Your task to perform on an android device: Clear the shopping cart on walmart. Add "logitech g pro" to the cart on walmart, then select checkout. Image 0: 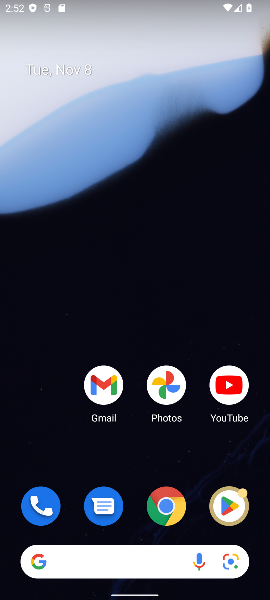
Step 0: drag from (114, 523) to (235, 38)
Your task to perform on an android device: Clear the shopping cart on walmart. Add "logitech g pro" to the cart on walmart, then select checkout. Image 1: 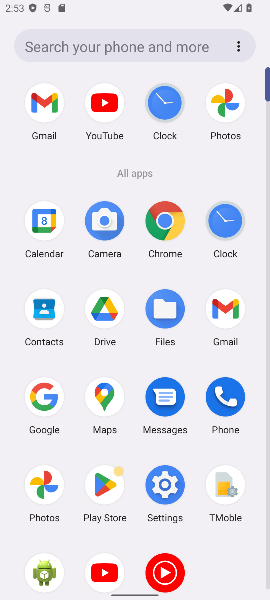
Step 1: click (52, 404)
Your task to perform on an android device: Clear the shopping cart on walmart. Add "logitech g pro" to the cart on walmart, then select checkout. Image 2: 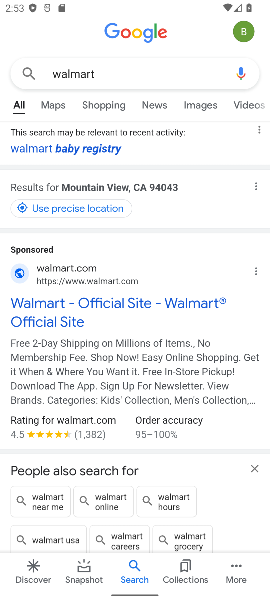
Step 2: click (112, 311)
Your task to perform on an android device: Clear the shopping cart on walmart. Add "logitech g pro" to the cart on walmart, then select checkout. Image 3: 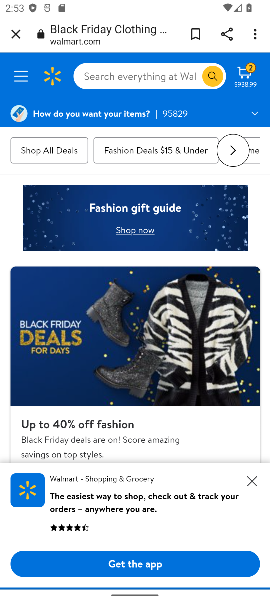
Step 3: click (167, 79)
Your task to perform on an android device: Clear the shopping cart on walmart. Add "logitech g pro" to the cart on walmart, then select checkout. Image 4: 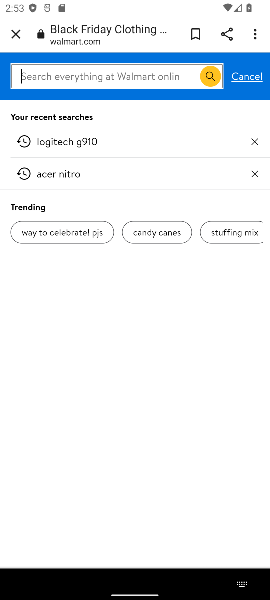
Step 4: type "logitech g pro"
Your task to perform on an android device: Clear the shopping cart on walmart. Add "logitech g pro" to the cart on walmart, then select checkout. Image 5: 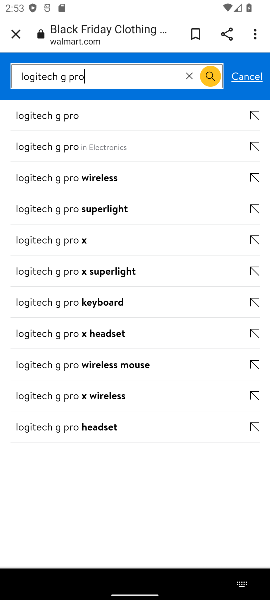
Step 5: click (119, 118)
Your task to perform on an android device: Clear the shopping cart on walmart. Add "logitech g pro" to the cart on walmart, then select checkout. Image 6: 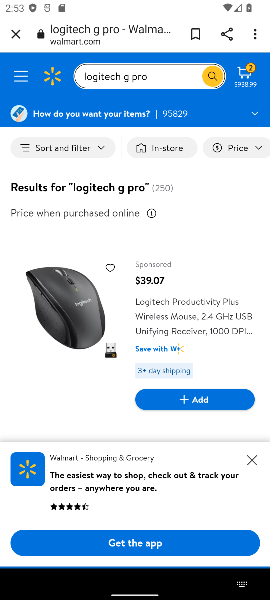
Step 6: click (252, 458)
Your task to perform on an android device: Clear the shopping cart on walmart. Add "logitech g pro" to the cart on walmart, then select checkout. Image 7: 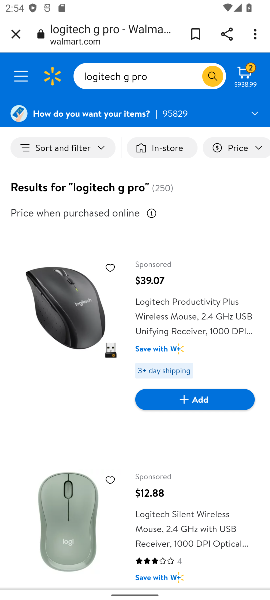
Step 7: click (206, 404)
Your task to perform on an android device: Clear the shopping cart on walmart. Add "logitech g pro" to the cart on walmart, then select checkout. Image 8: 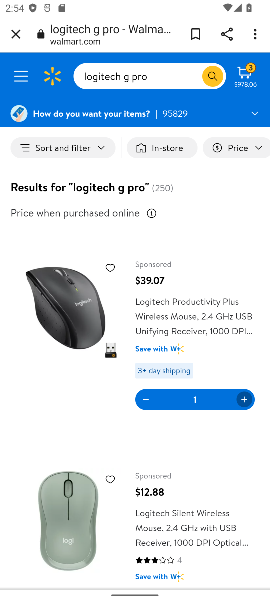
Step 8: task complete